Your task to perform on an android device: Go to ESPN.com Image 0: 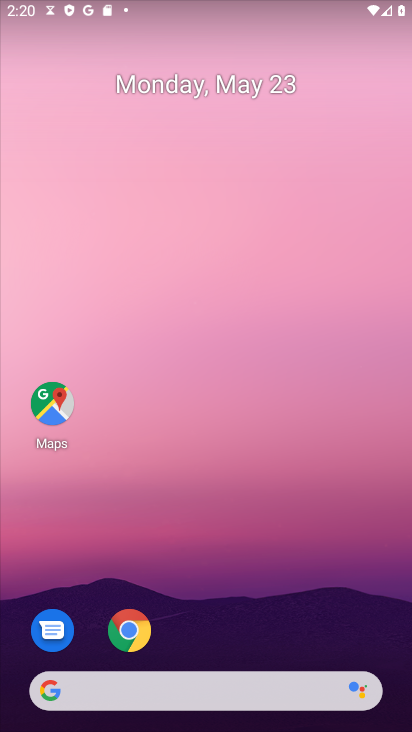
Step 0: drag from (312, 598) to (273, 94)
Your task to perform on an android device: Go to ESPN.com Image 1: 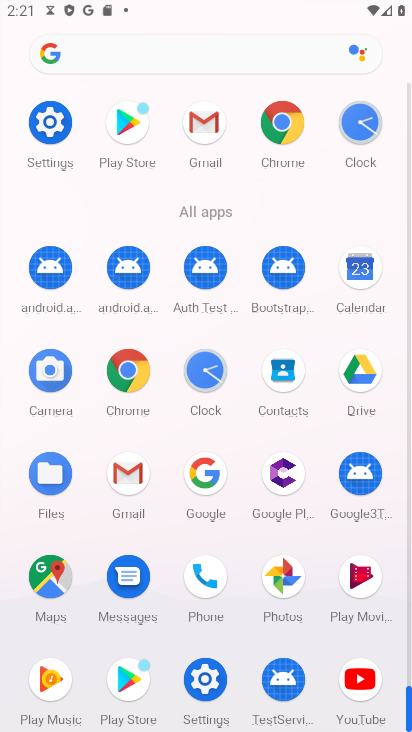
Step 1: click (300, 125)
Your task to perform on an android device: Go to ESPN.com Image 2: 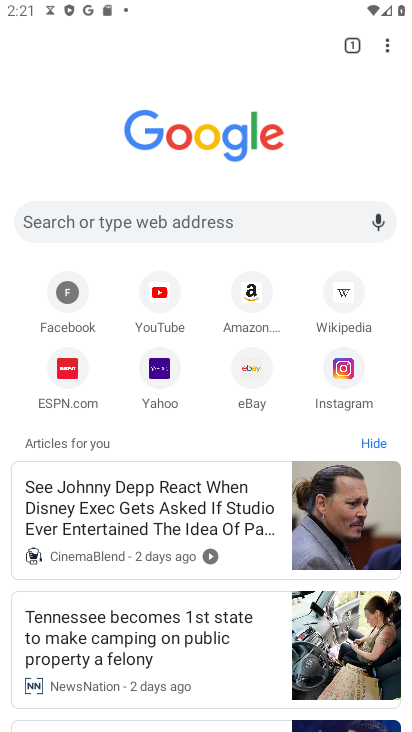
Step 2: click (45, 384)
Your task to perform on an android device: Go to ESPN.com Image 3: 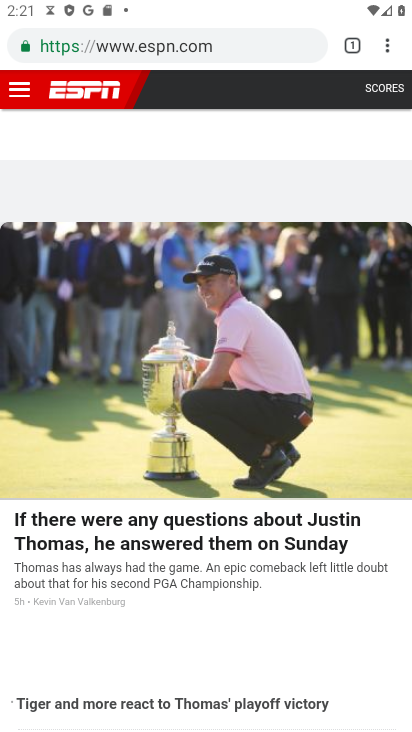
Step 3: task complete